Your task to perform on an android device: Search for beats solo 3 on bestbuy, select the first entry, and add it to the cart. Image 0: 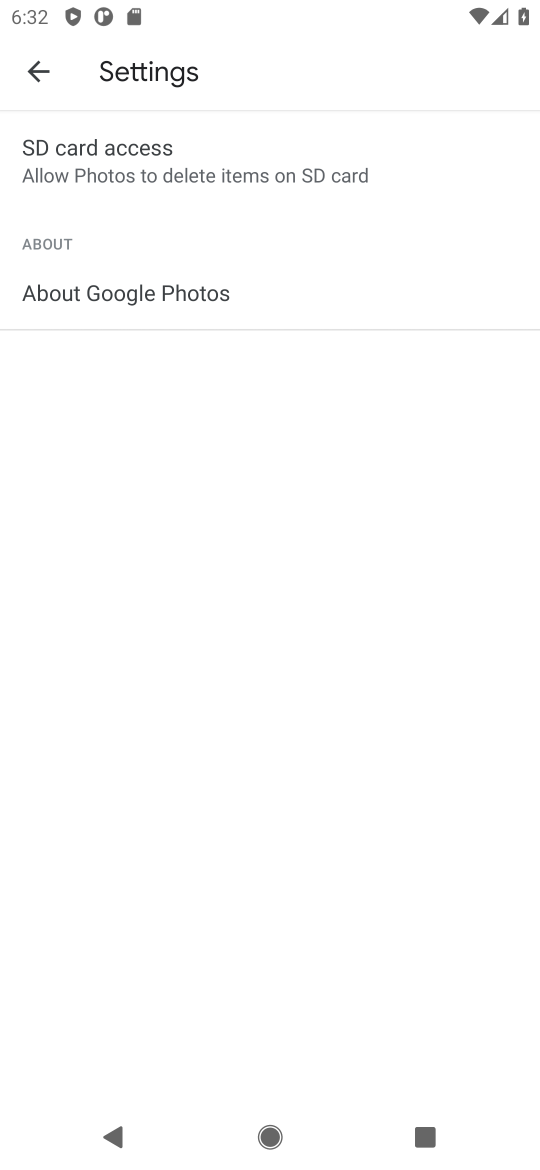
Step 0: press home button
Your task to perform on an android device: Search for beats solo 3 on bestbuy, select the first entry, and add it to the cart. Image 1: 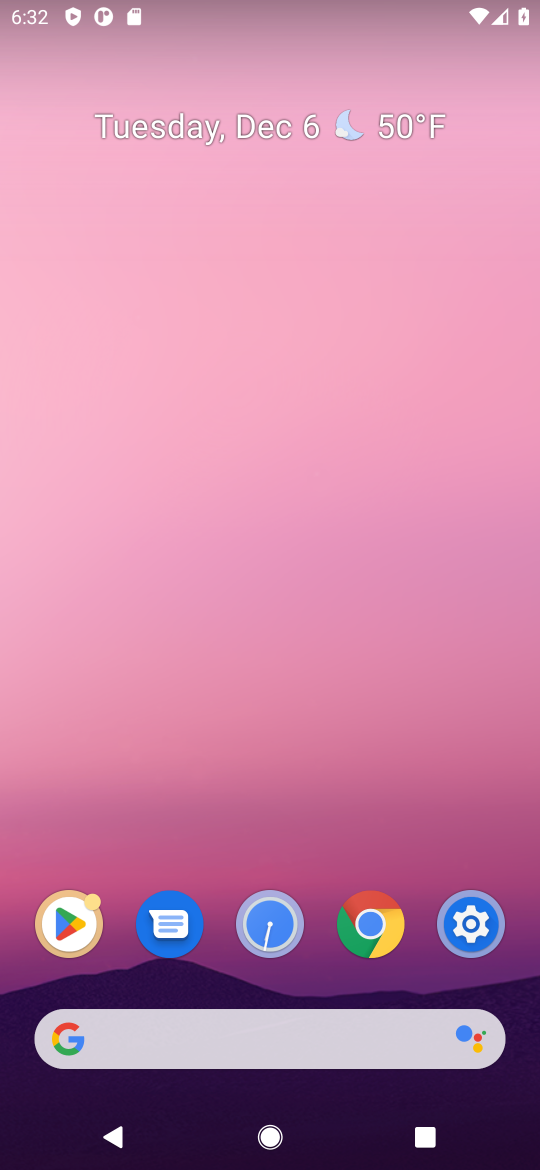
Step 1: press home button
Your task to perform on an android device: Search for beats solo 3 on bestbuy, select the first entry, and add it to the cart. Image 2: 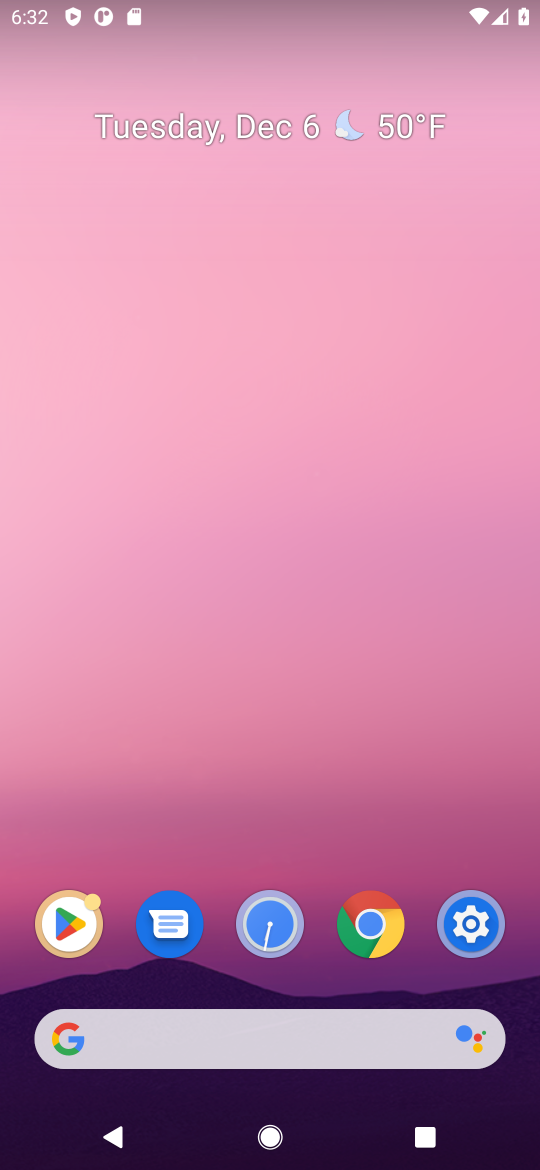
Step 2: click (250, 1039)
Your task to perform on an android device: Search for beats solo 3 on bestbuy, select the first entry, and add it to the cart. Image 3: 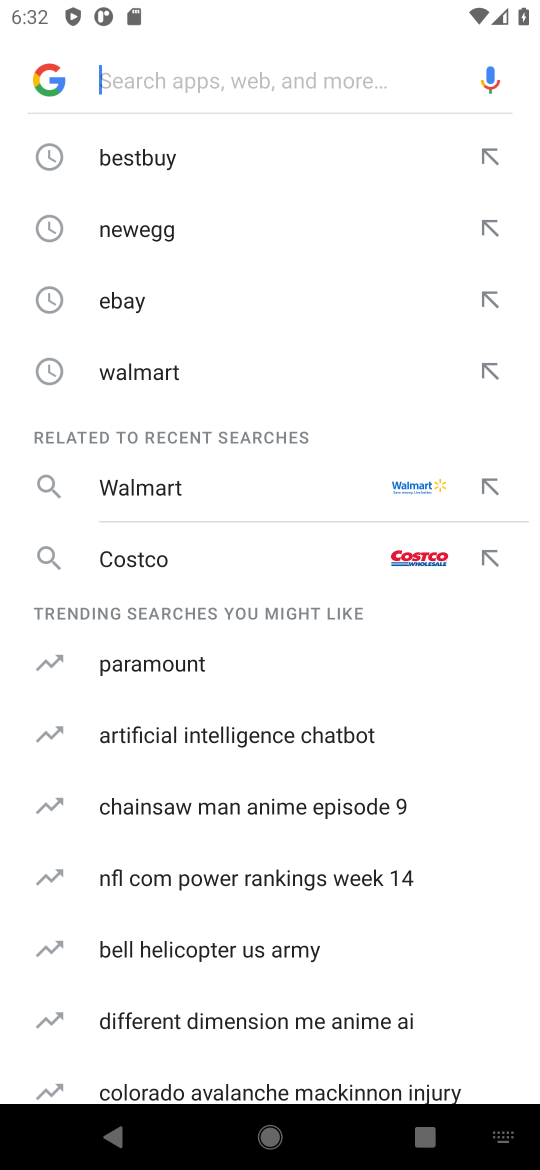
Step 3: type "bestbuy "
Your task to perform on an android device: Search for beats solo 3 on bestbuy, select the first entry, and add it to the cart. Image 4: 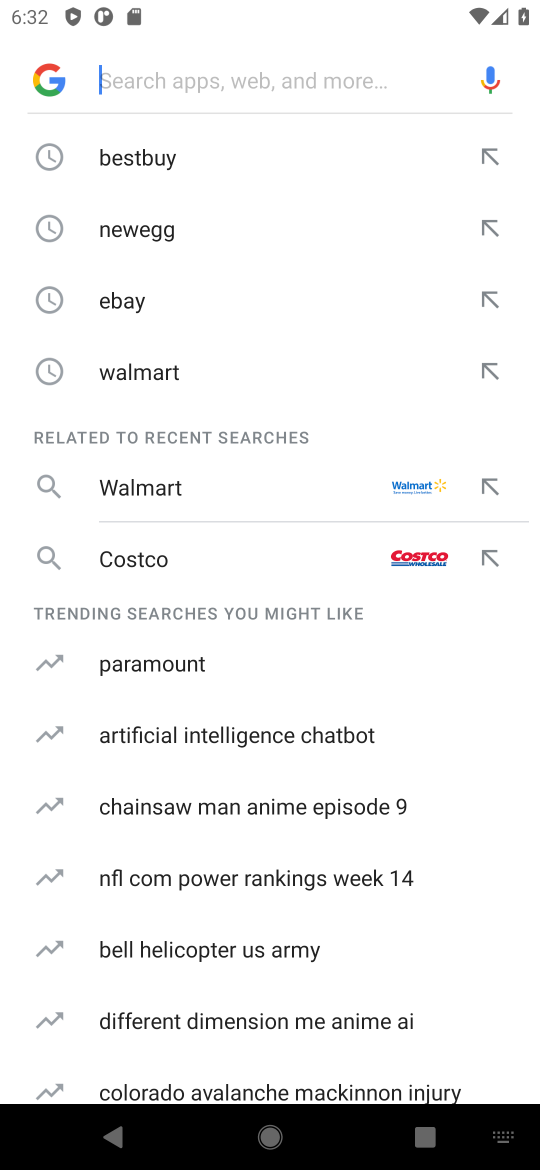
Step 4: click (190, 178)
Your task to perform on an android device: Search for beats solo 3 on bestbuy, select the first entry, and add it to the cart. Image 5: 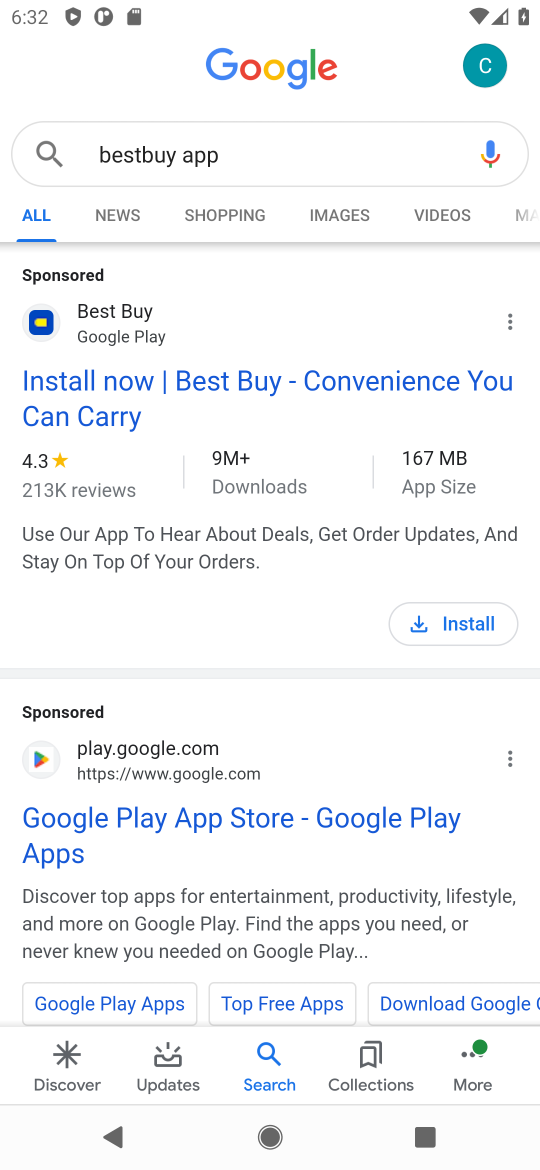
Step 5: click (136, 381)
Your task to perform on an android device: Search for beats solo 3 on bestbuy, select the first entry, and add it to the cart. Image 6: 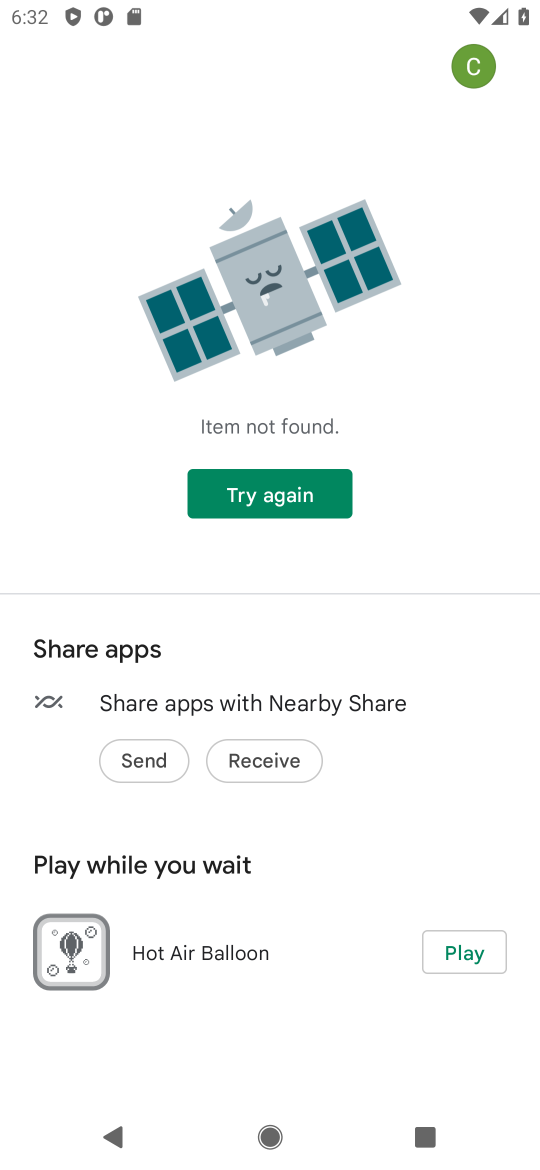
Step 6: press back button
Your task to perform on an android device: Search for beats solo 3 on bestbuy, select the first entry, and add it to the cart. Image 7: 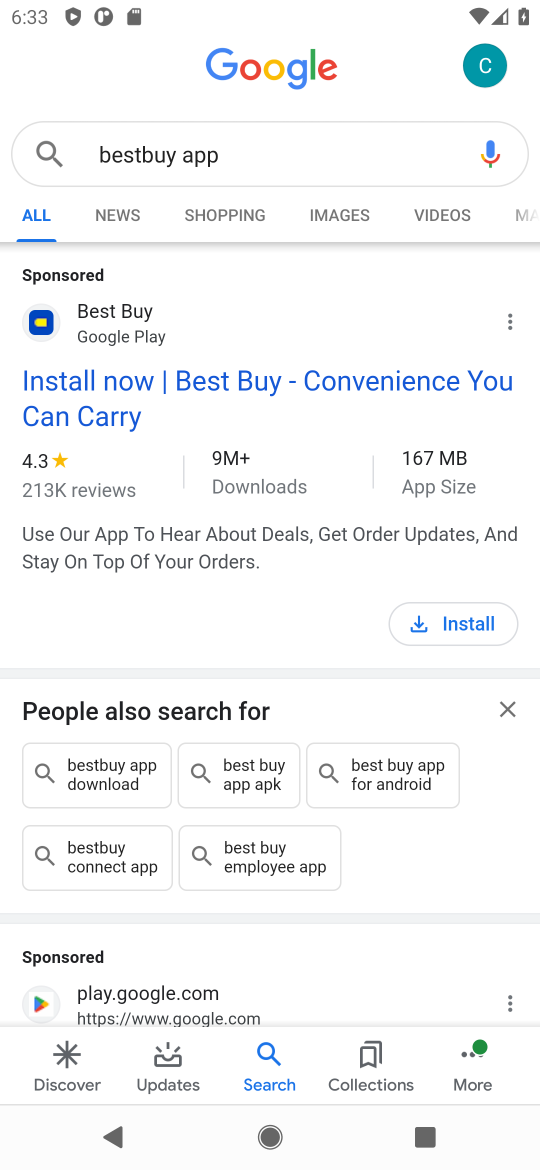
Step 7: drag from (328, 990) to (275, 329)
Your task to perform on an android device: Search for beats solo 3 on bestbuy, select the first entry, and add it to the cart. Image 8: 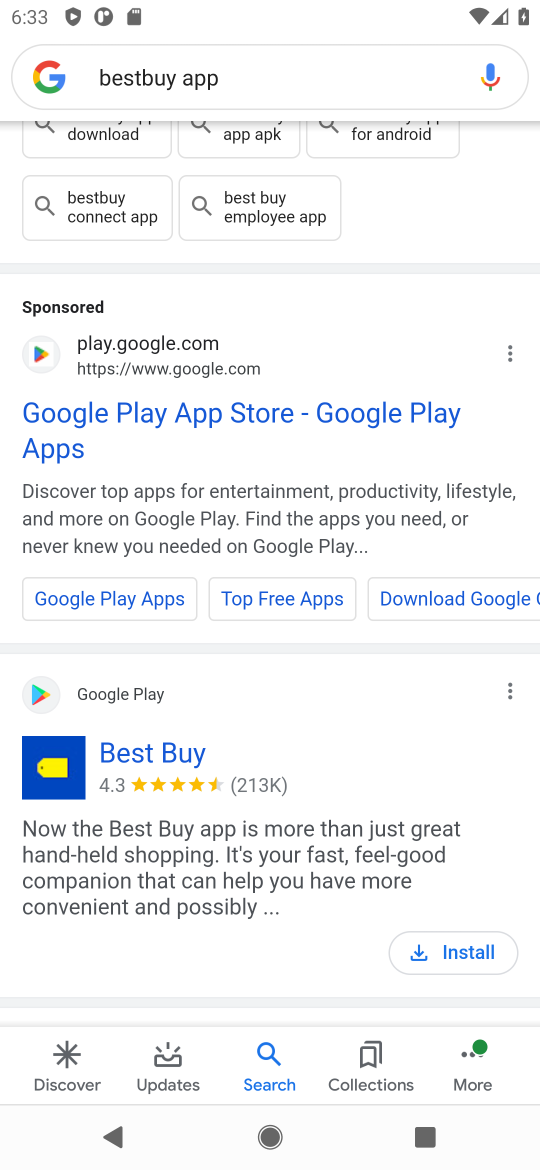
Step 8: drag from (179, 949) to (145, 427)
Your task to perform on an android device: Search for beats solo 3 on bestbuy, select the first entry, and add it to the cart. Image 9: 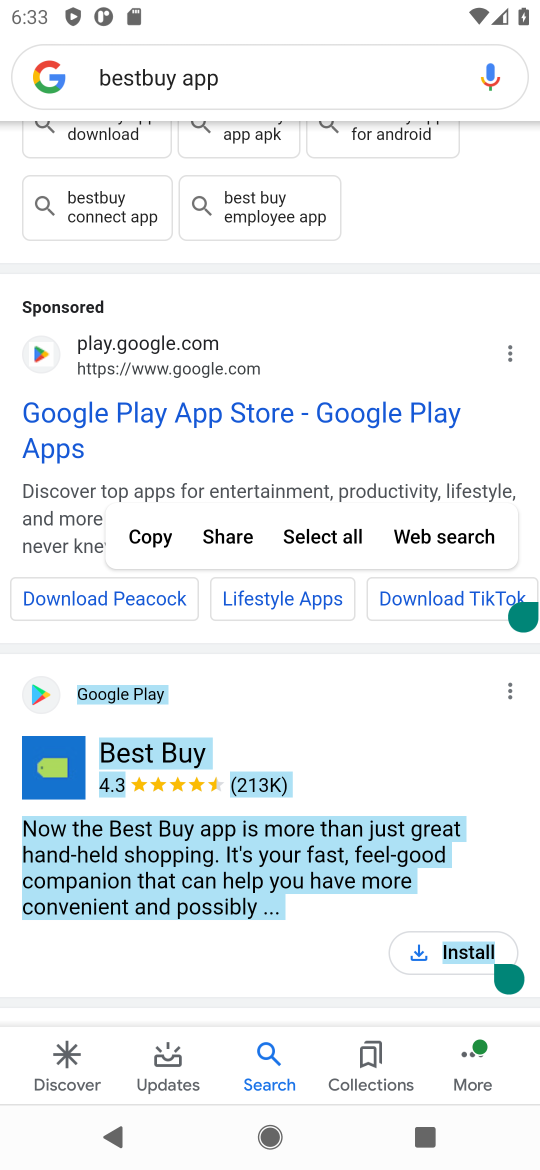
Step 9: click (258, 968)
Your task to perform on an android device: Search for beats solo 3 on bestbuy, select the first entry, and add it to the cart. Image 10: 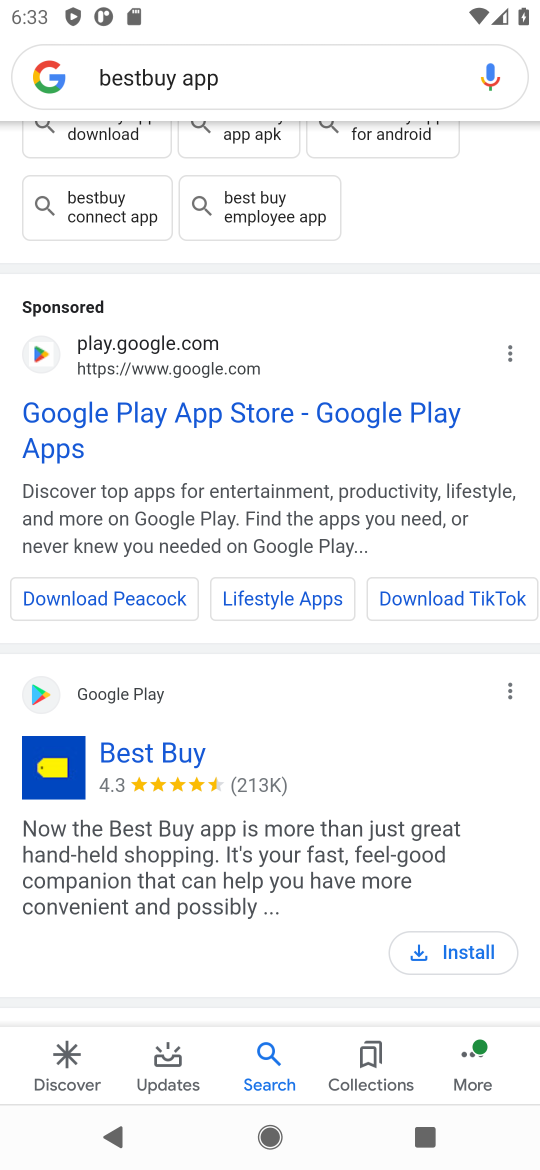
Step 10: drag from (258, 968) to (230, 210)
Your task to perform on an android device: Search for beats solo 3 on bestbuy, select the first entry, and add it to the cart. Image 11: 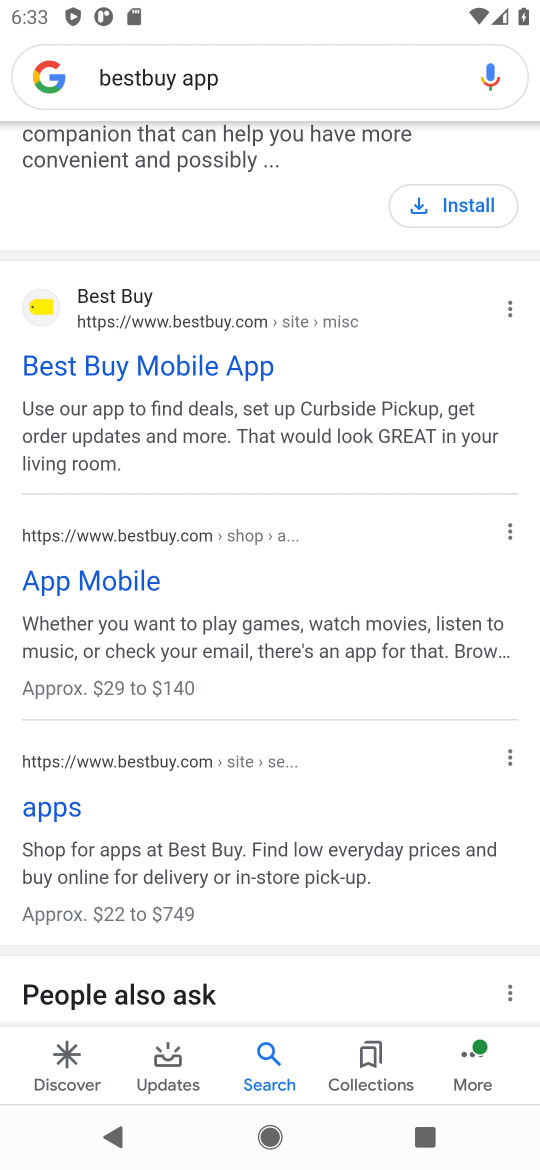
Step 11: click (35, 821)
Your task to perform on an android device: Search for beats solo 3 on bestbuy, select the first entry, and add it to the cart. Image 12: 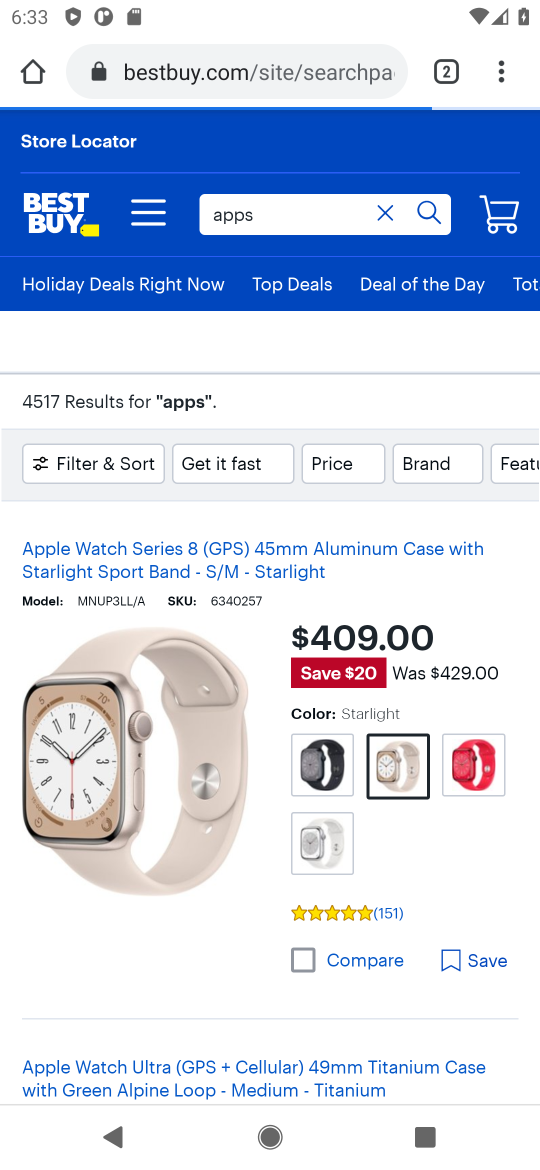
Step 12: click (286, 207)
Your task to perform on an android device: Search for beats solo 3 on bestbuy, select the first entry, and add it to the cart. Image 13: 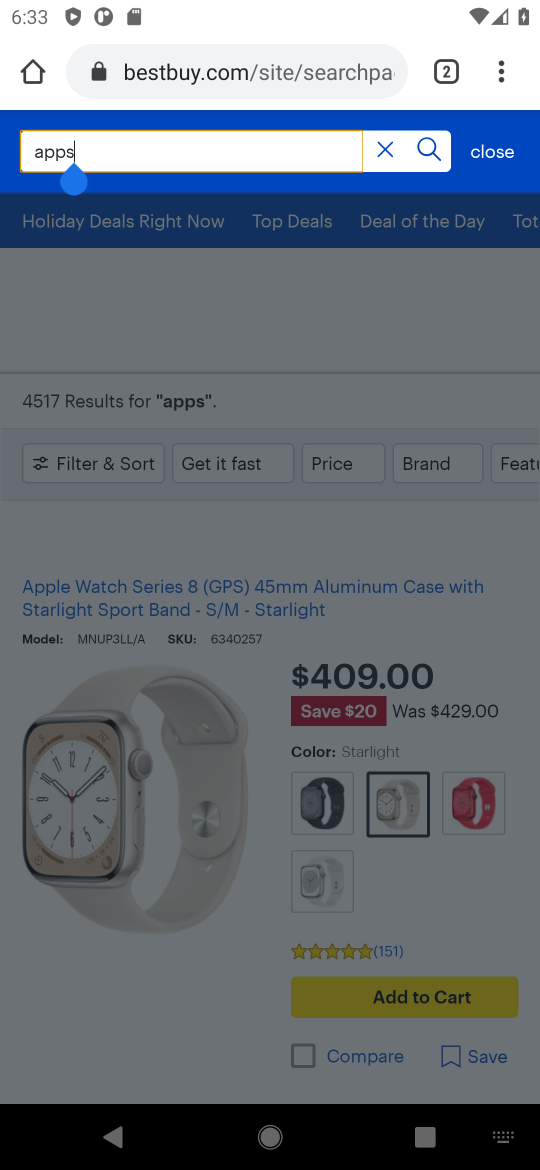
Step 13: click (388, 214)
Your task to perform on an android device: Search for beats solo 3 on bestbuy, select the first entry, and add it to the cart. Image 14: 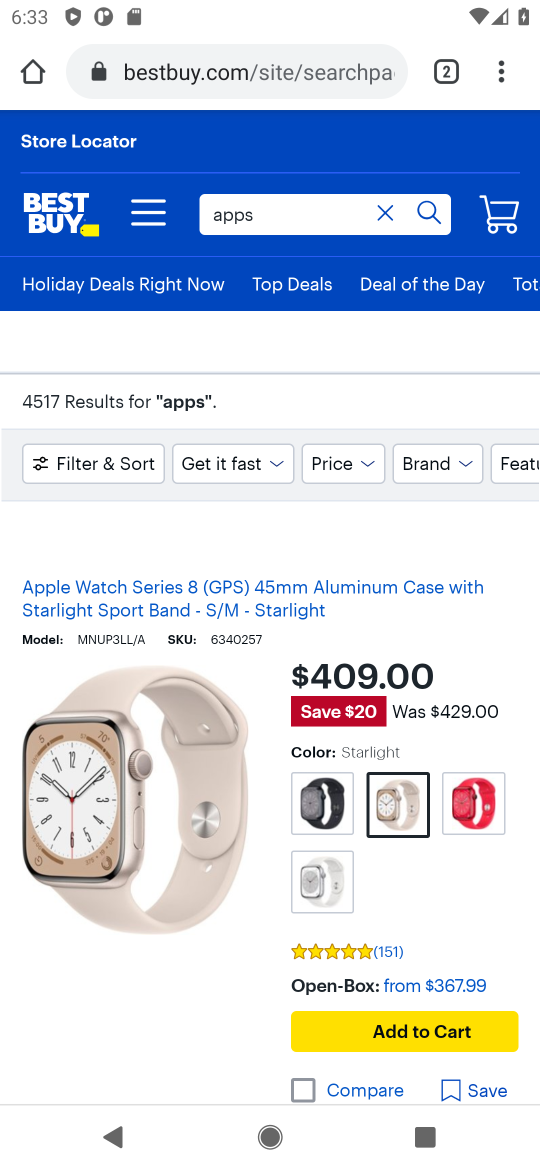
Step 14: click (390, 222)
Your task to perform on an android device: Search for beats solo 3 on bestbuy, select the first entry, and add it to the cart. Image 15: 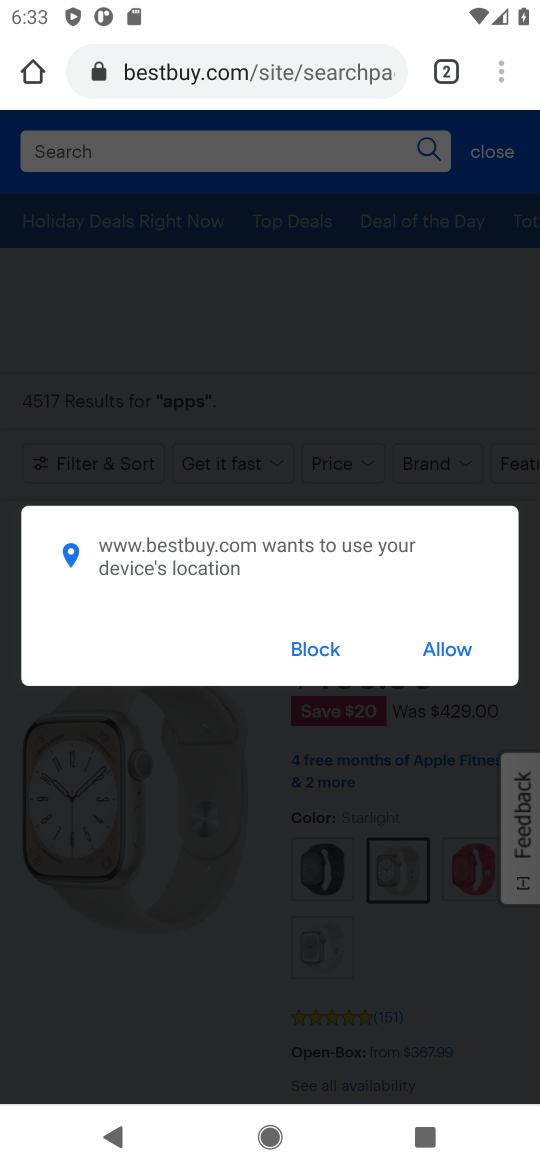
Step 15: type "beats solo 3"
Your task to perform on an android device: Search for beats solo 3 on bestbuy, select the first entry, and add it to the cart. Image 16: 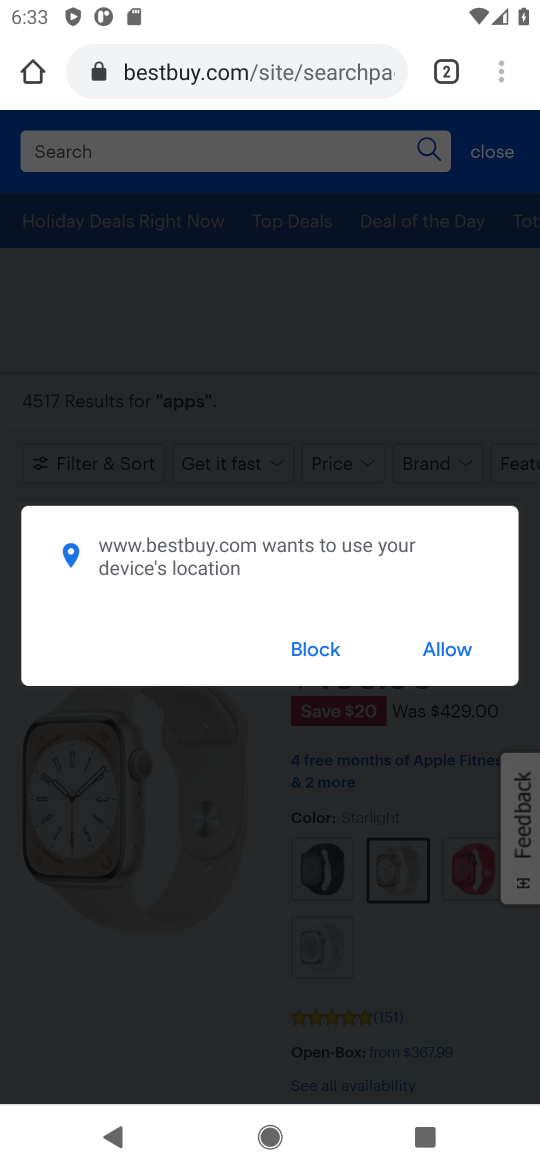
Step 16: click (447, 658)
Your task to perform on an android device: Search for beats solo 3 on bestbuy, select the first entry, and add it to the cart. Image 17: 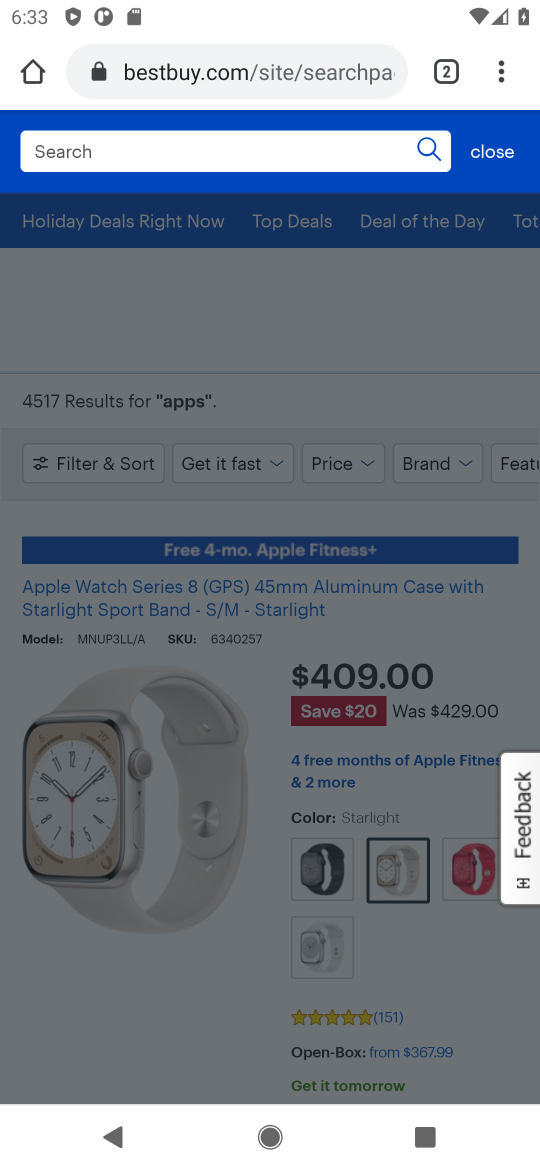
Step 17: click (259, 150)
Your task to perform on an android device: Search for beats solo 3 on bestbuy, select the first entry, and add it to the cart. Image 18: 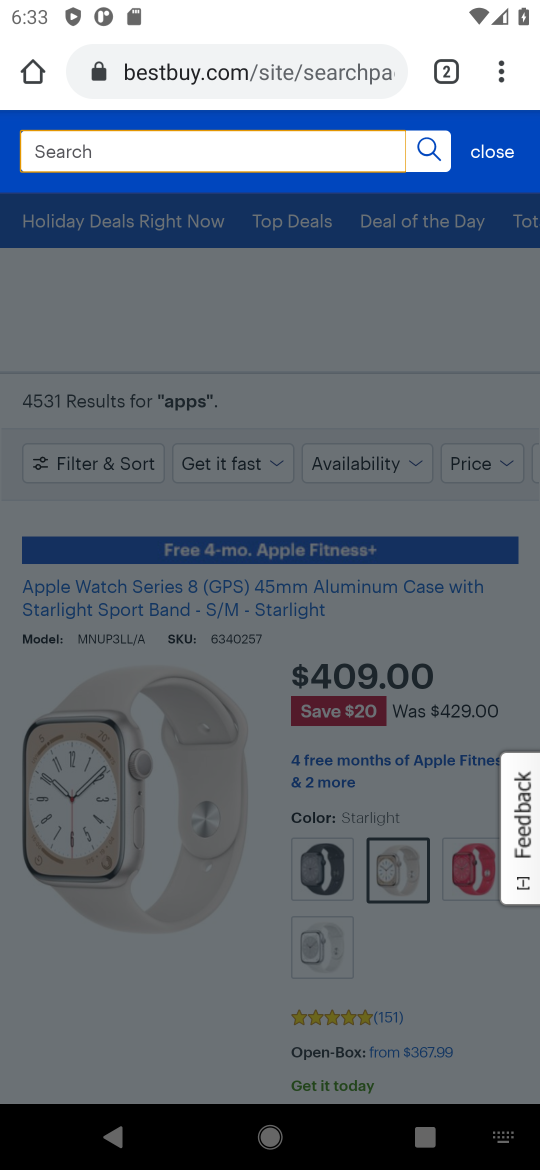
Step 18: type "beats solo 3"
Your task to perform on an android device: Search for beats solo 3 on bestbuy, select the first entry, and add it to the cart. Image 19: 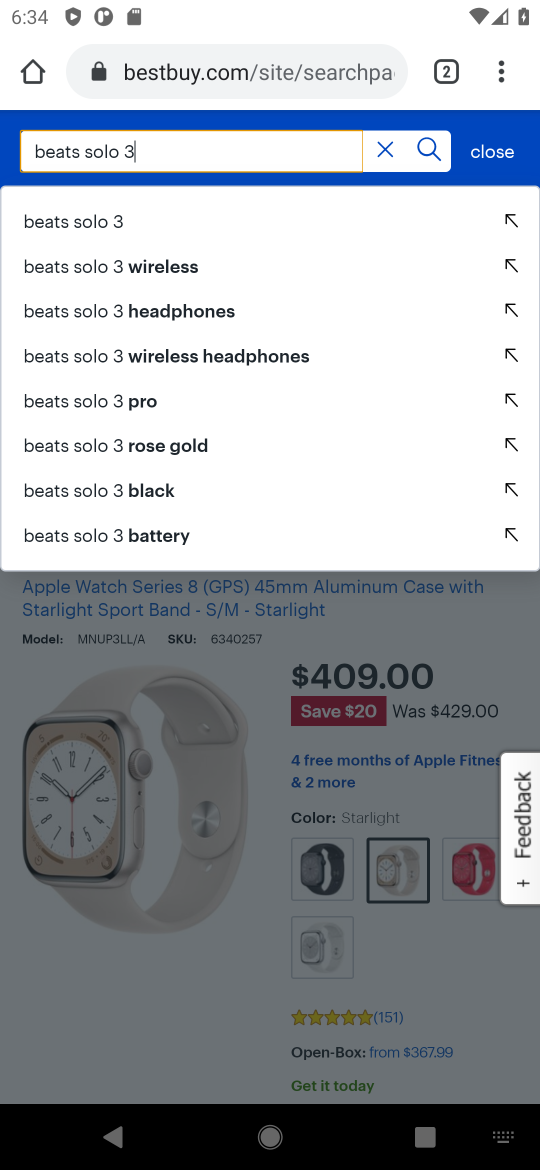
Step 19: click (495, 220)
Your task to perform on an android device: Search for beats solo 3 on bestbuy, select the first entry, and add it to the cart. Image 20: 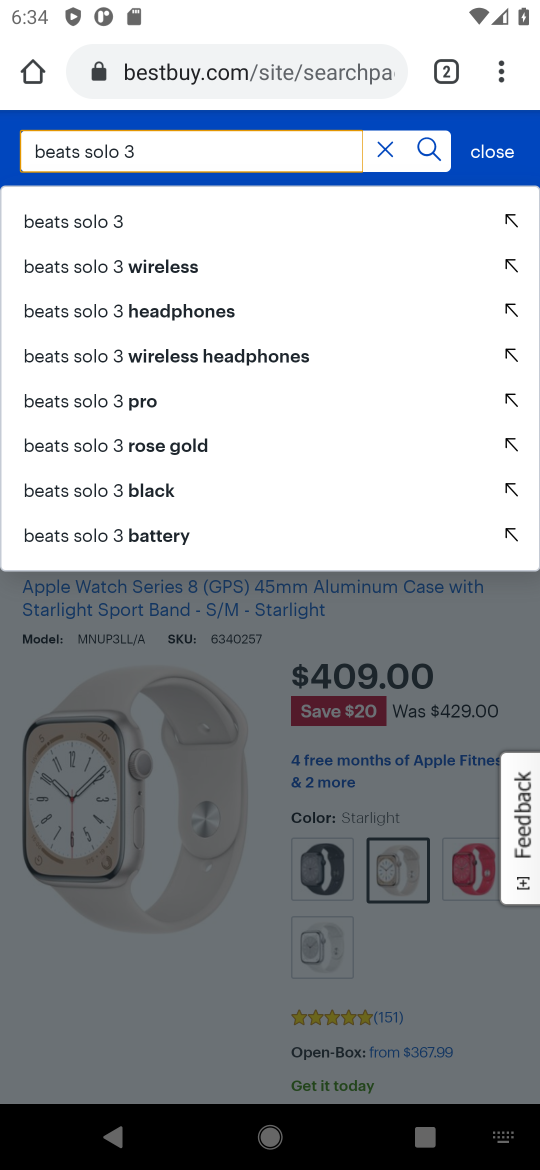
Step 20: click (519, 212)
Your task to perform on an android device: Search for beats solo 3 on bestbuy, select the first entry, and add it to the cart. Image 21: 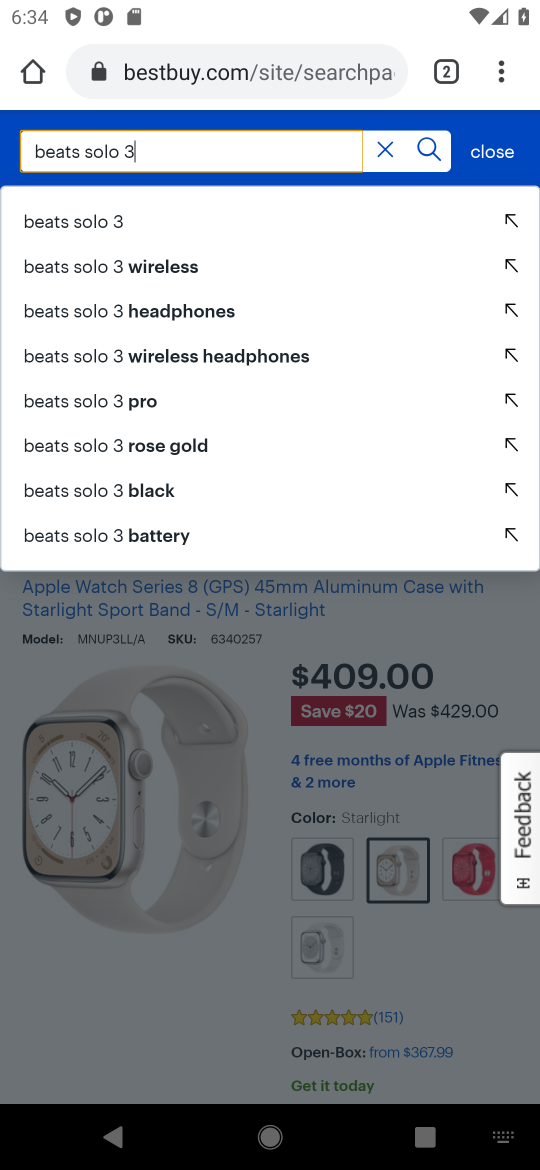
Step 21: click (519, 212)
Your task to perform on an android device: Search for beats solo 3 on bestbuy, select the first entry, and add it to the cart. Image 22: 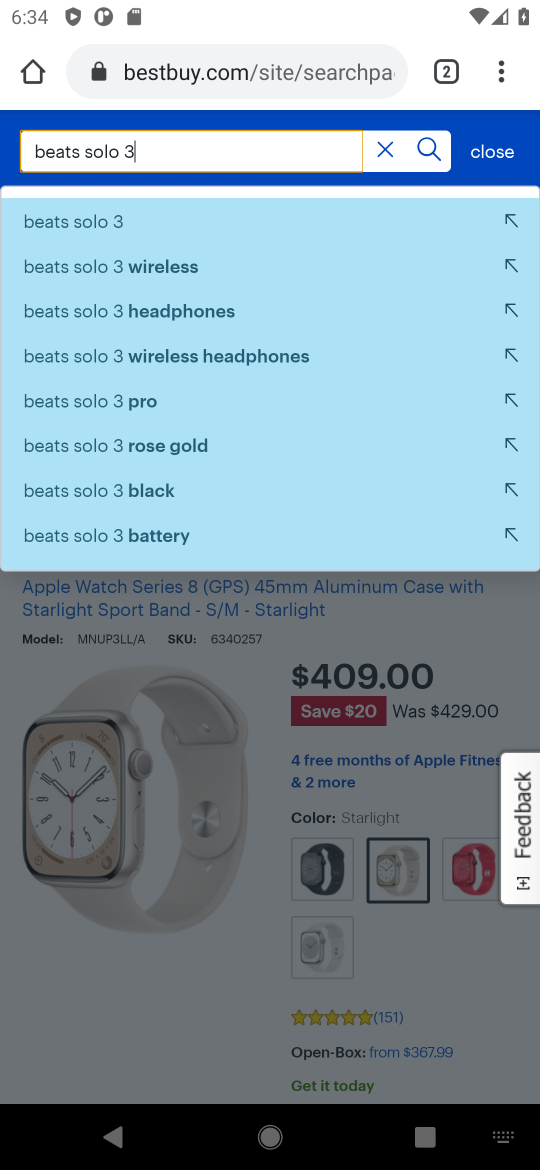
Step 22: click (519, 212)
Your task to perform on an android device: Search for beats solo 3 on bestbuy, select the first entry, and add it to the cart. Image 23: 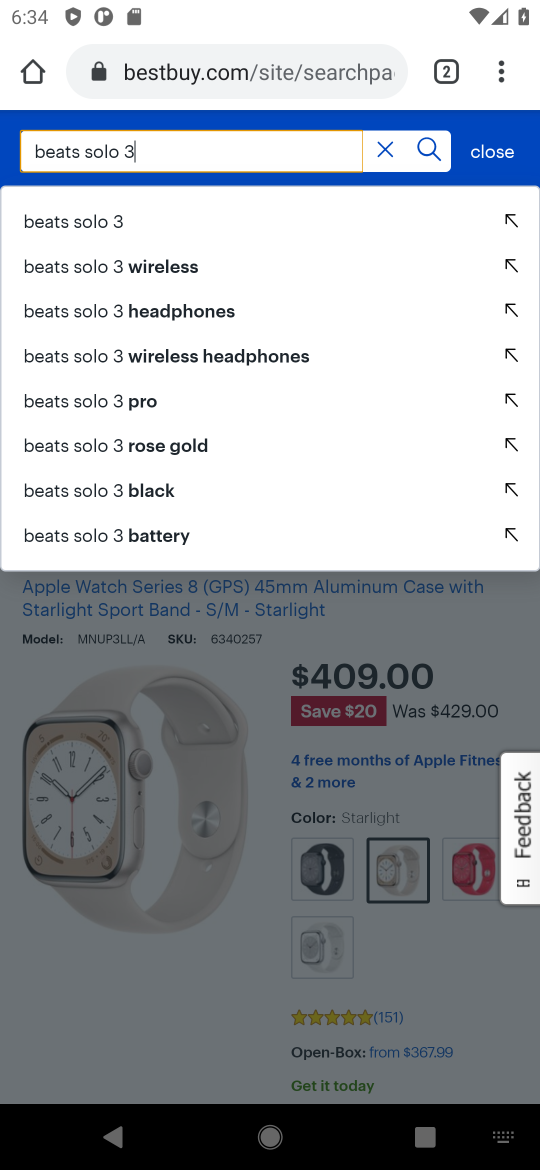
Step 23: click (426, 152)
Your task to perform on an android device: Search for beats solo 3 on bestbuy, select the first entry, and add it to the cart. Image 24: 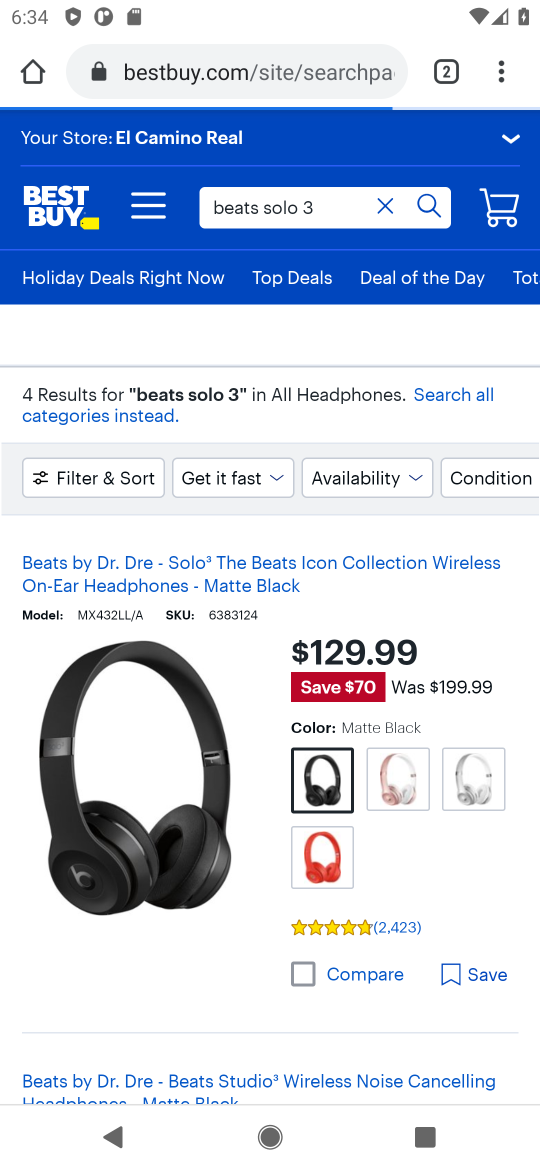
Step 24: drag from (200, 1004) to (164, 633)
Your task to perform on an android device: Search for beats solo 3 on bestbuy, select the first entry, and add it to the cart. Image 25: 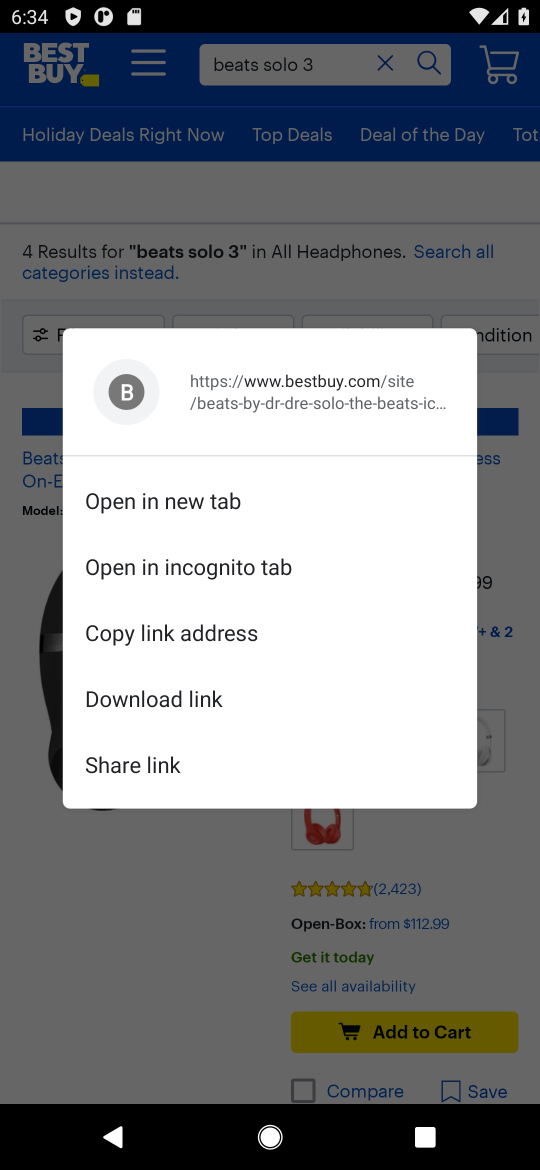
Step 25: click (142, 974)
Your task to perform on an android device: Search for beats solo 3 on bestbuy, select the first entry, and add it to the cart. Image 26: 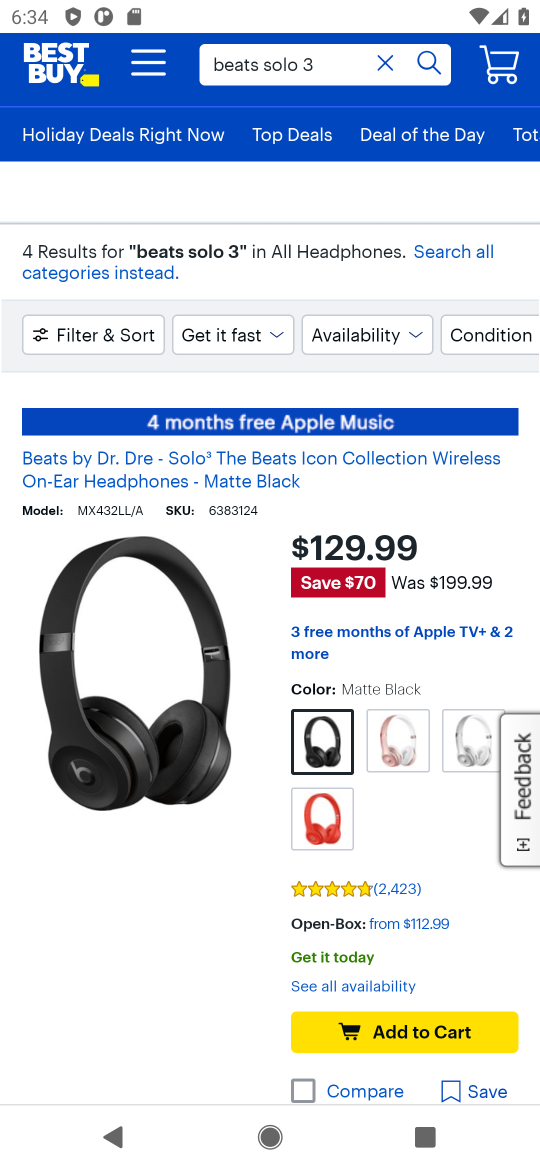
Step 26: click (410, 1051)
Your task to perform on an android device: Search for beats solo 3 on bestbuy, select the first entry, and add it to the cart. Image 27: 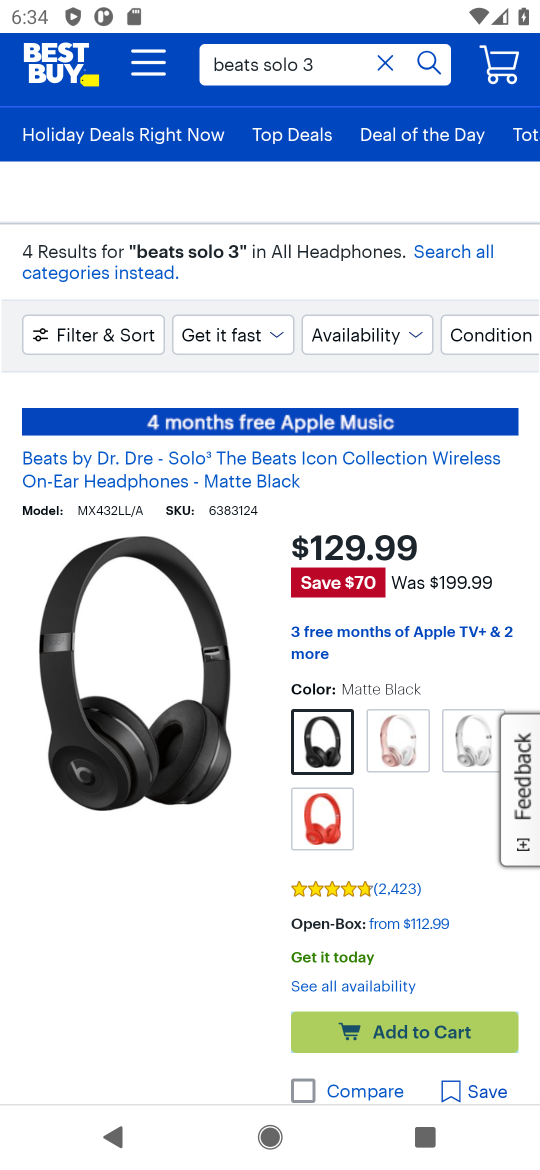
Step 27: click (410, 1051)
Your task to perform on an android device: Search for beats solo 3 on bestbuy, select the first entry, and add it to the cart. Image 28: 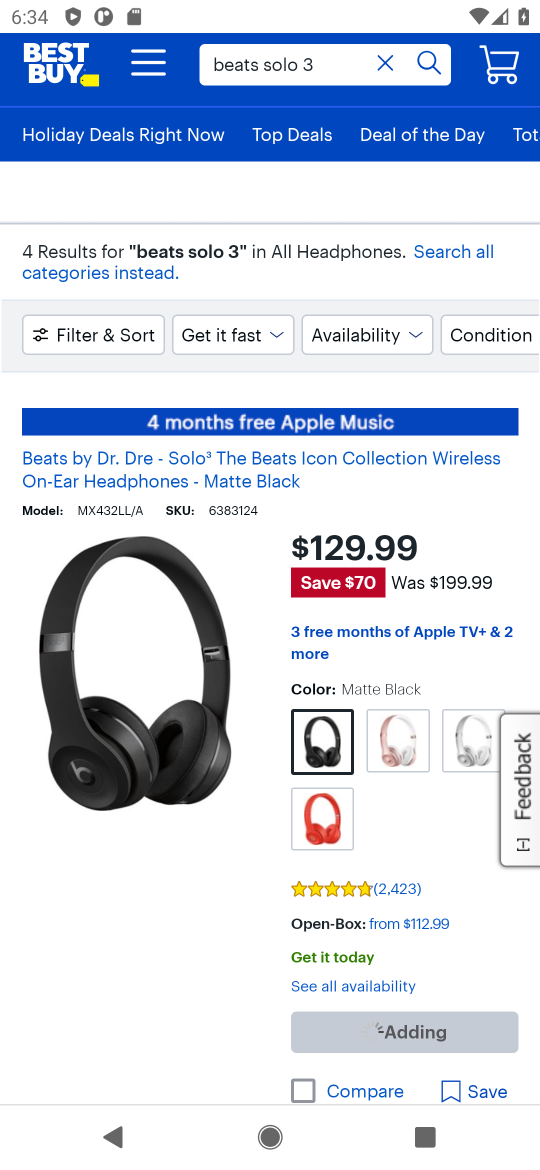
Step 28: task complete